Your task to perform on an android device: change keyboard looks Image 0: 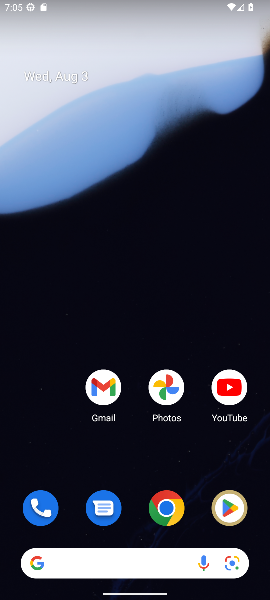
Step 0: drag from (205, 477) to (180, 75)
Your task to perform on an android device: change keyboard looks Image 1: 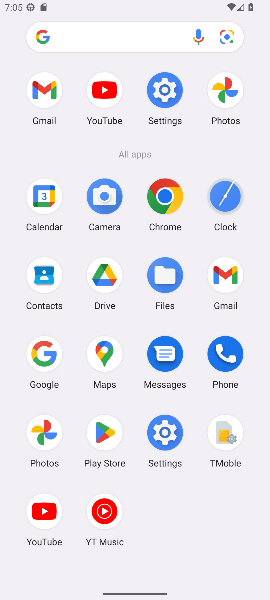
Step 1: click (170, 89)
Your task to perform on an android device: change keyboard looks Image 2: 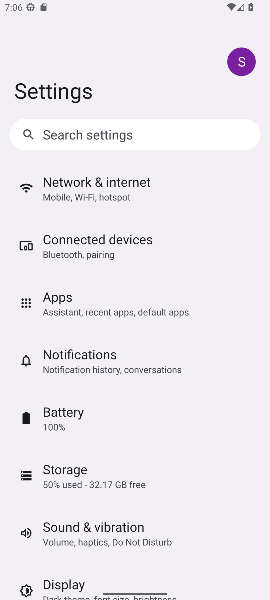
Step 2: drag from (154, 570) to (122, 51)
Your task to perform on an android device: change keyboard looks Image 3: 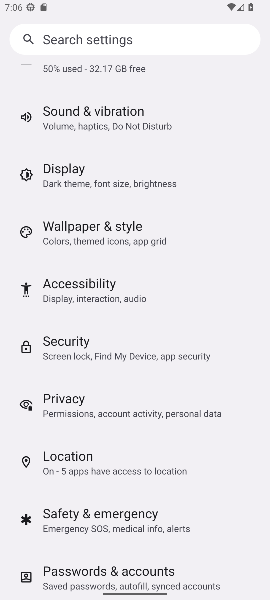
Step 3: drag from (151, 552) to (111, 11)
Your task to perform on an android device: change keyboard looks Image 4: 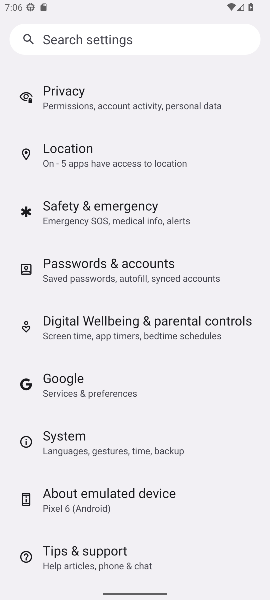
Step 4: click (124, 438)
Your task to perform on an android device: change keyboard looks Image 5: 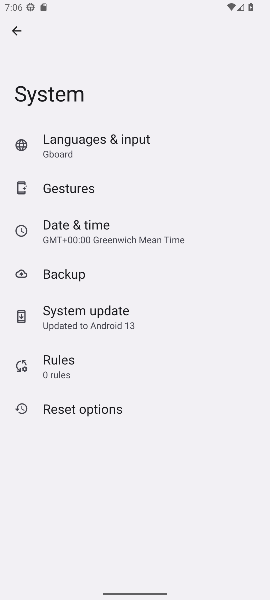
Step 5: click (135, 137)
Your task to perform on an android device: change keyboard looks Image 6: 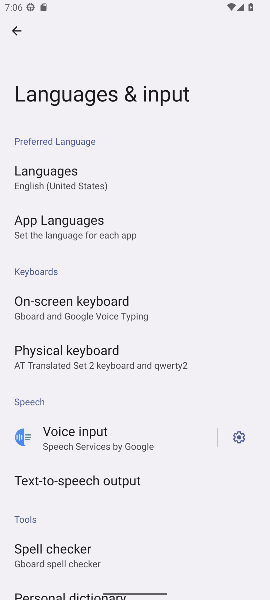
Step 6: click (143, 180)
Your task to perform on an android device: change keyboard looks Image 7: 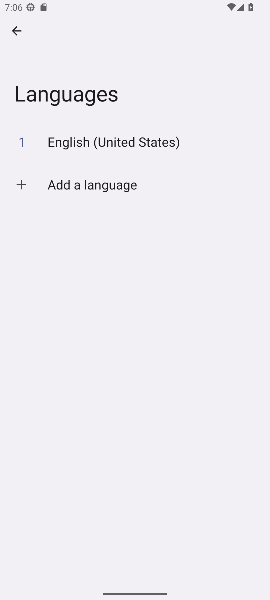
Step 7: click (19, 25)
Your task to perform on an android device: change keyboard looks Image 8: 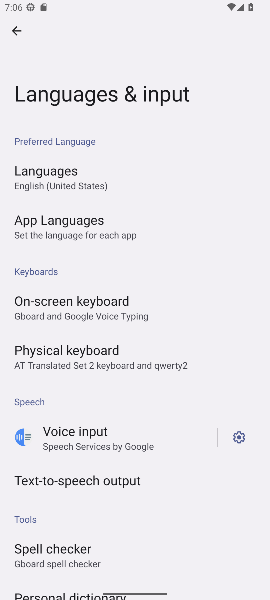
Step 8: drag from (153, 381) to (134, 199)
Your task to perform on an android device: change keyboard looks Image 9: 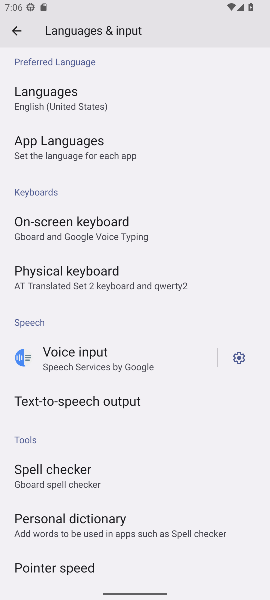
Step 9: click (144, 232)
Your task to perform on an android device: change keyboard looks Image 10: 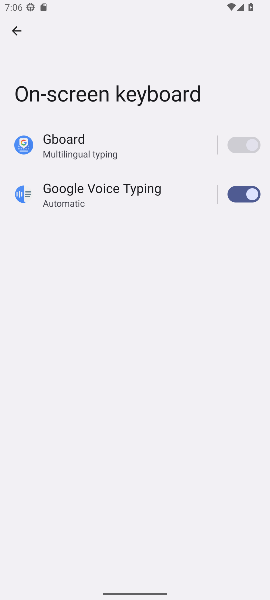
Step 10: click (14, 33)
Your task to perform on an android device: change keyboard looks Image 11: 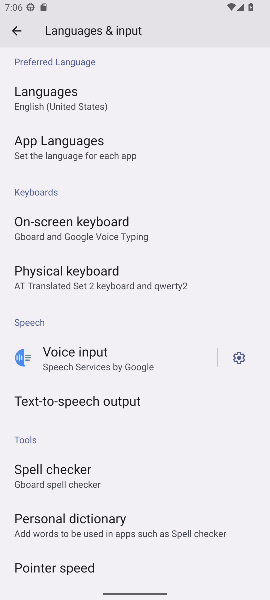
Step 11: click (124, 252)
Your task to perform on an android device: change keyboard looks Image 12: 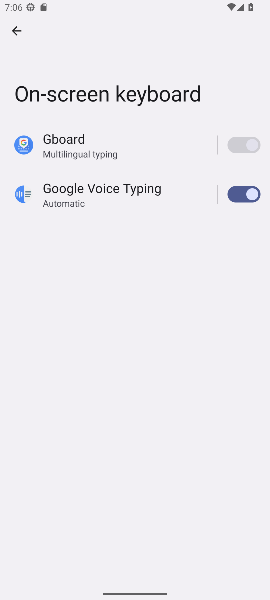
Step 12: click (12, 36)
Your task to perform on an android device: change keyboard looks Image 13: 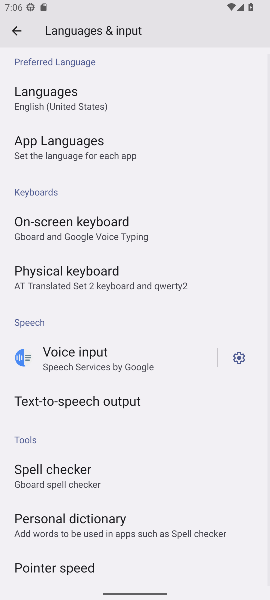
Step 13: click (110, 275)
Your task to perform on an android device: change keyboard looks Image 14: 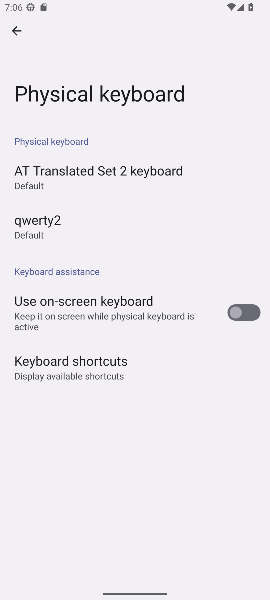
Step 14: task complete